Your task to perform on an android device: Search for sushi restaurants on Maps Image 0: 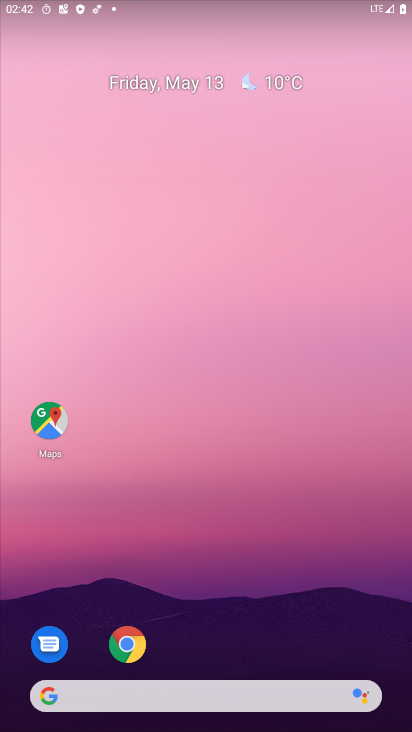
Step 0: drag from (266, 691) to (342, 34)
Your task to perform on an android device: Search for sushi restaurants on Maps Image 1: 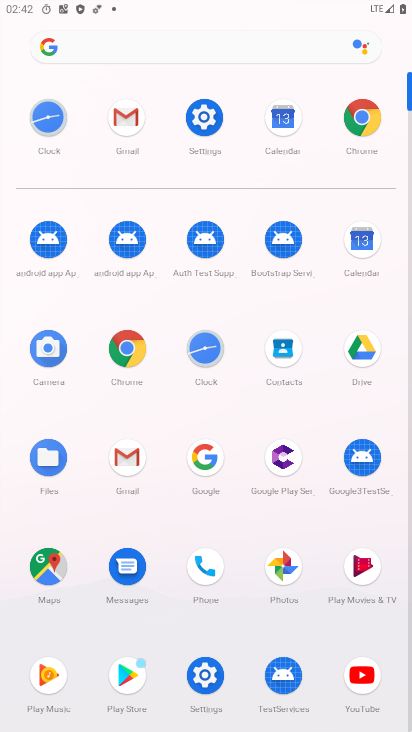
Step 1: click (68, 569)
Your task to perform on an android device: Search for sushi restaurants on Maps Image 2: 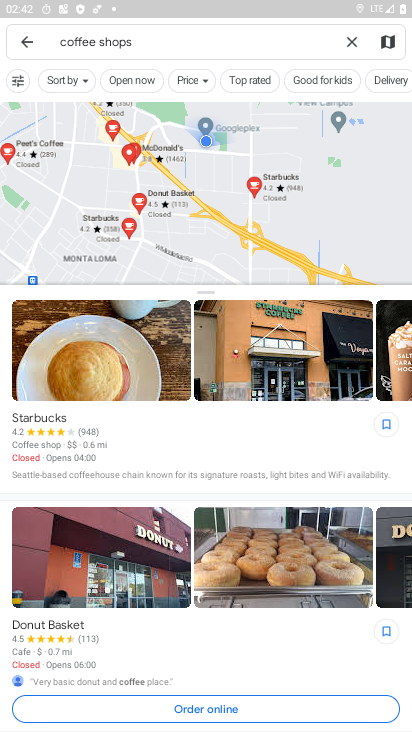
Step 2: click (349, 42)
Your task to perform on an android device: Search for sushi restaurants on Maps Image 3: 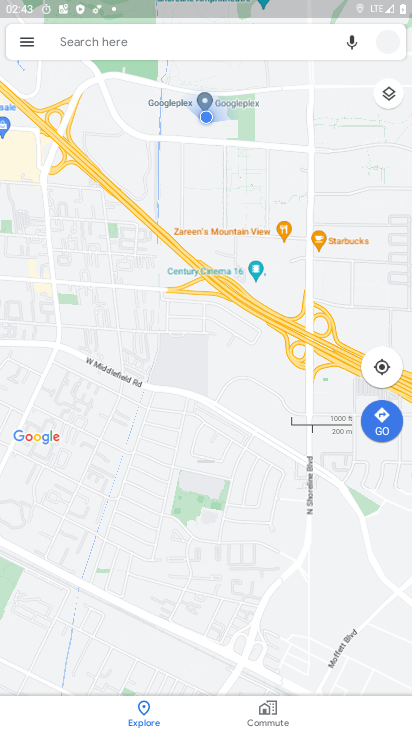
Step 3: click (258, 48)
Your task to perform on an android device: Search for sushi restaurants on Maps Image 4: 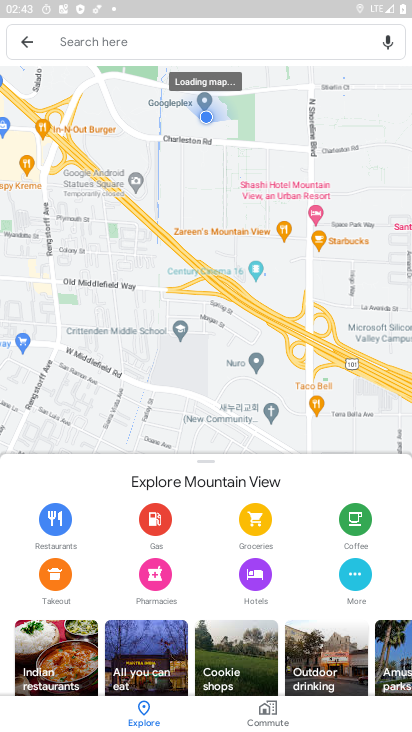
Step 4: click (258, 48)
Your task to perform on an android device: Search for sushi restaurants on Maps Image 5: 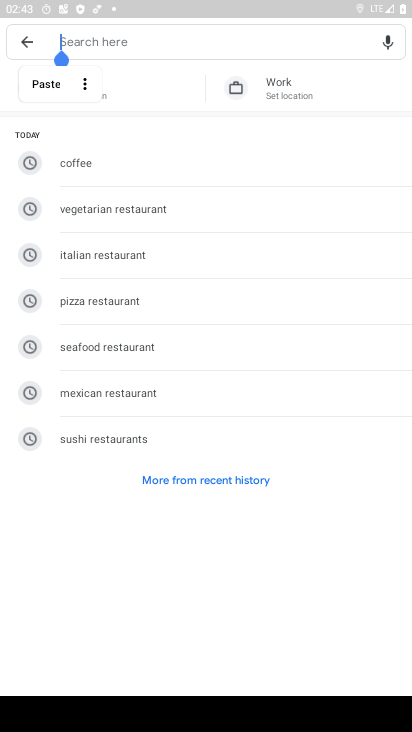
Step 5: click (104, 434)
Your task to perform on an android device: Search for sushi restaurants on Maps Image 6: 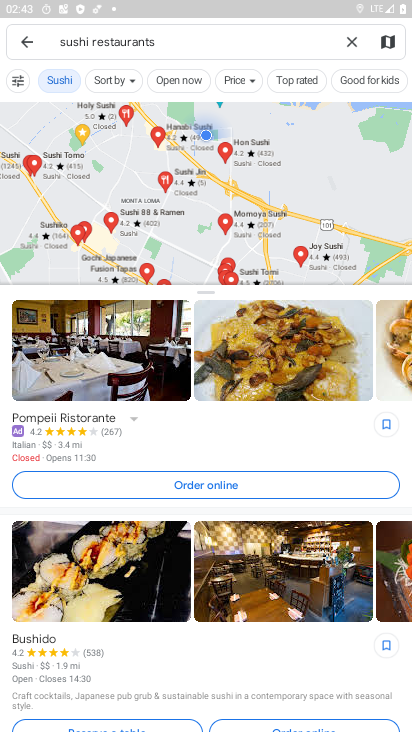
Step 6: task complete